Your task to perform on an android device: What is the recent news? Image 0: 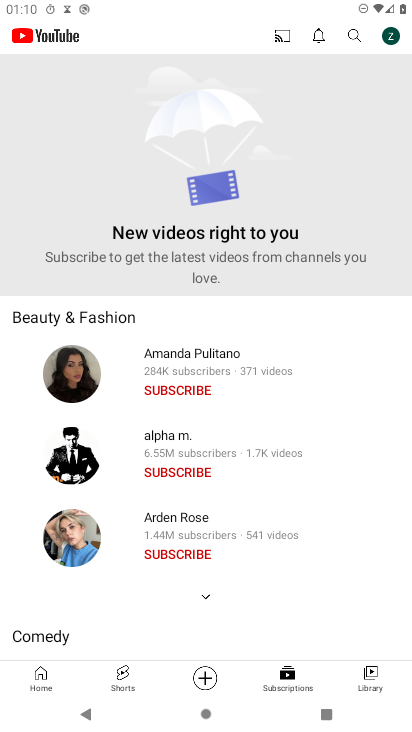
Step 0: press home button
Your task to perform on an android device: What is the recent news? Image 1: 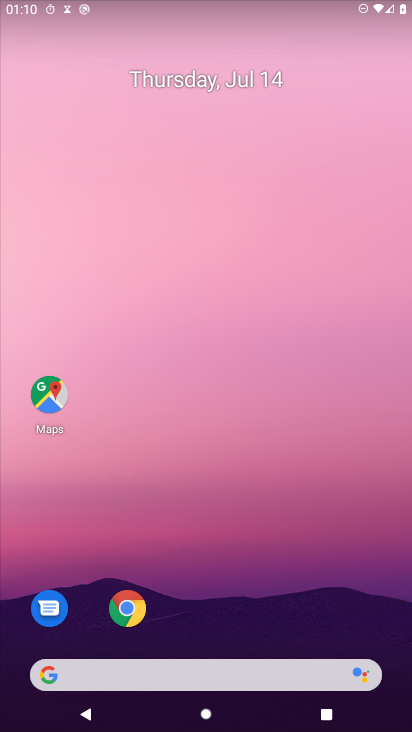
Step 1: click (49, 672)
Your task to perform on an android device: What is the recent news? Image 2: 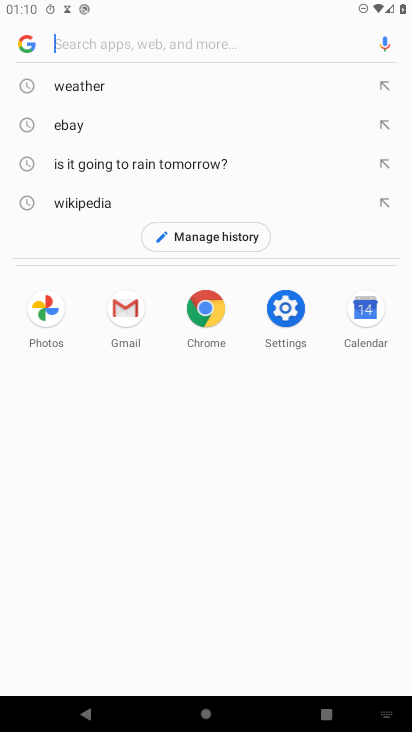
Step 2: type " recent news"
Your task to perform on an android device: What is the recent news? Image 3: 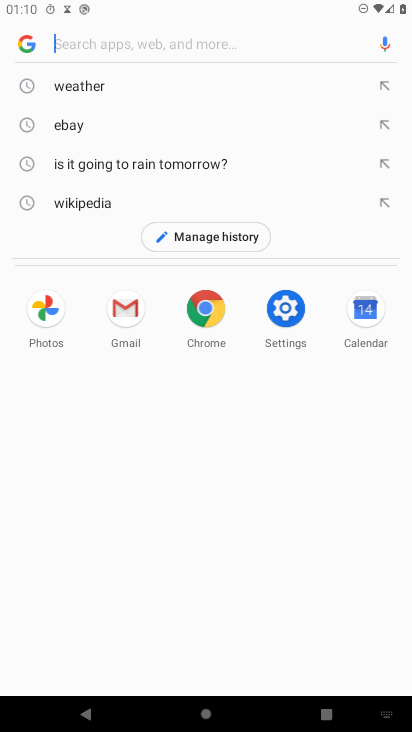
Step 3: click (91, 40)
Your task to perform on an android device: What is the recent news? Image 4: 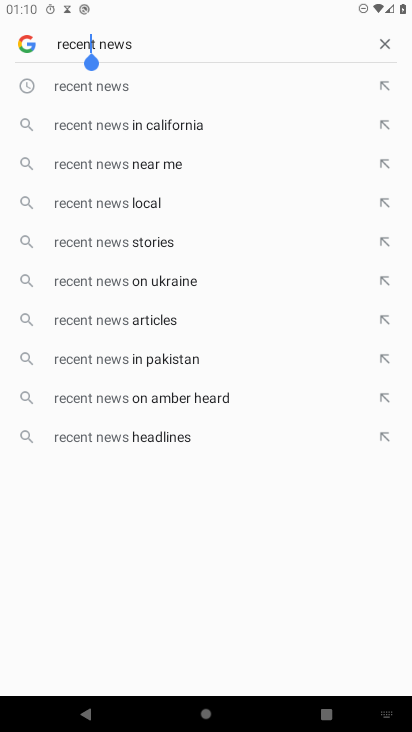
Step 4: click (82, 88)
Your task to perform on an android device: What is the recent news? Image 5: 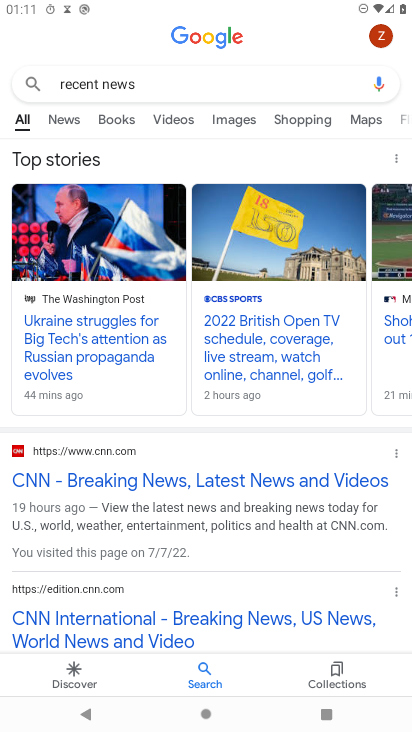
Step 5: task complete